Your task to perform on an android device: turn vacation reply on in the gmail app Image 0: 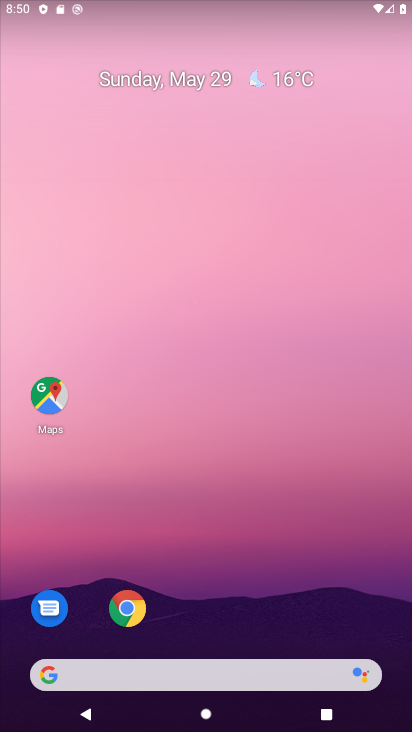
Step 0: drag from (200, 620) to (232, 54)
Your task to perform on an android device: turn vacation reply on in the gmail app Image 1: 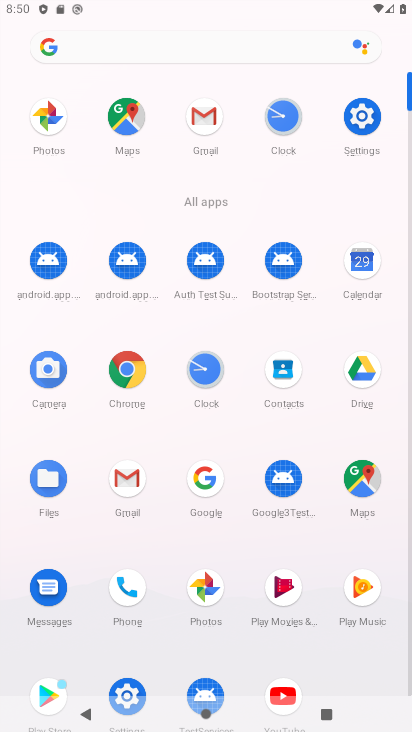
Step 1: click (201, 134)
Your task to perform on an android device: turn vacation reply on in the gmail app Image 2: 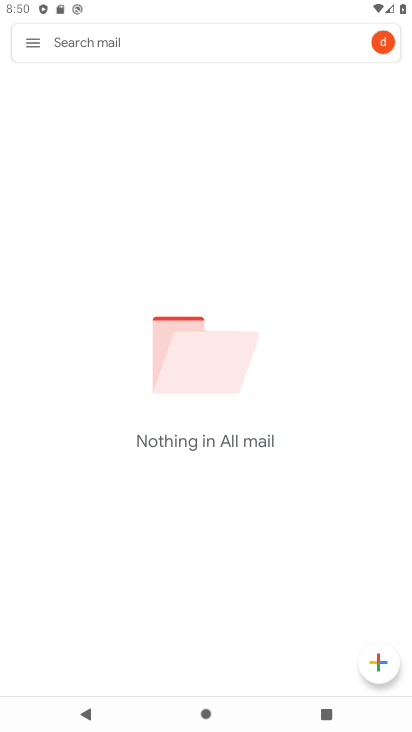
Step 2: click (34, 44)
Your task to perform on an android device: turn vacation reply on in the gmail app Image 3: 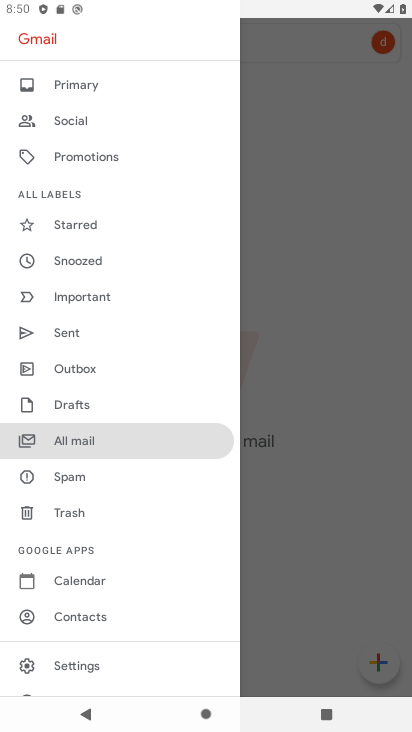
Step 3: click (85, 669)
Your task to perform on an android device: turn vacation reply on in the gmail app Image 4: 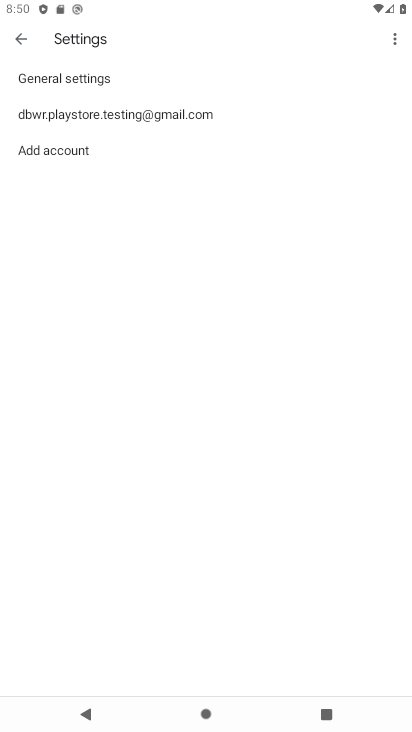
Step 4: click (108, 109)
Your task to perform on an android device: turn vacation reply on in the gmail app Image 5: 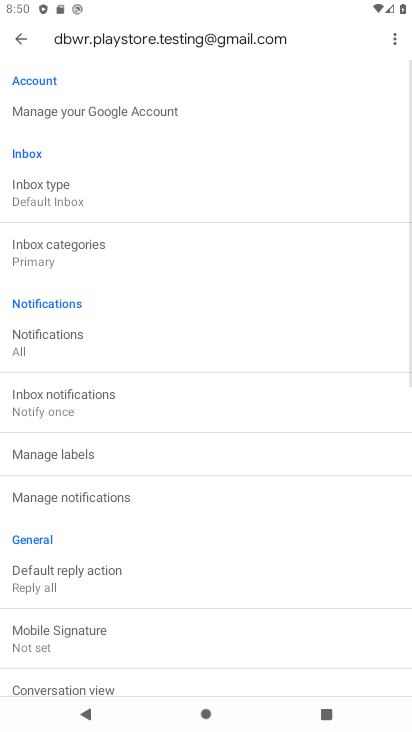
Step 5: drag from (132, 611) to (144, 23)
Your task to perform on an android device: turn vacation reply on in the gmail app Image 6: 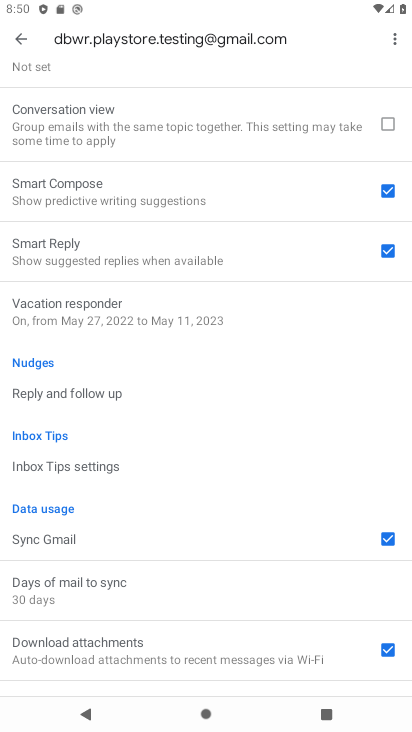
Step 6: drag from (228, 624) to (256, 139)
Your task to perform on an android device: turn vacation reply on in the gmail app Image 7: 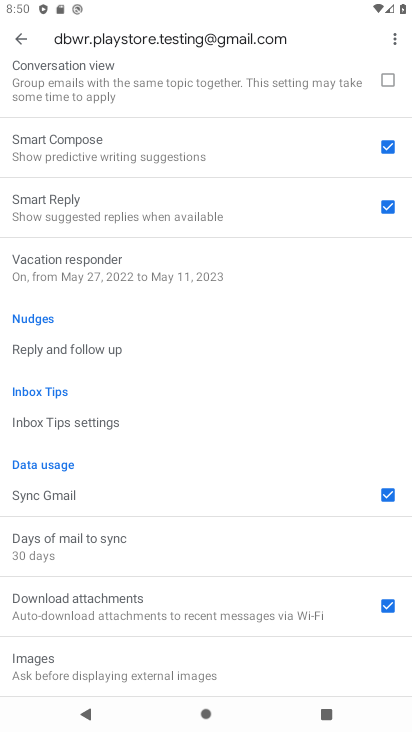
Step 7: click (85, 286)
Your task to perform on an android device: turn vacation reply on in the gmail app Image 8: 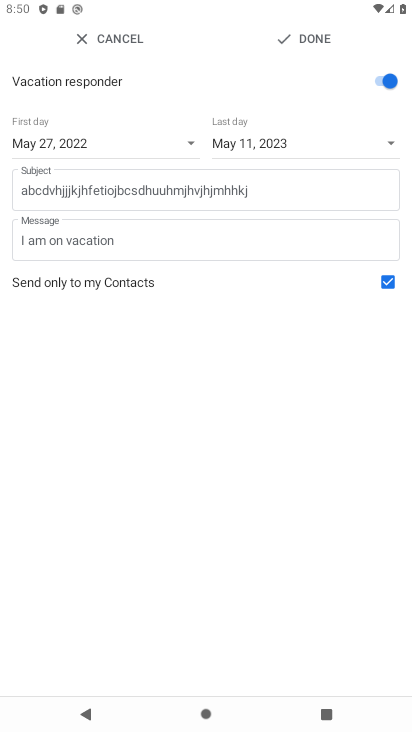
Step 8: task complete